Your task to perform on an android device: turn off wifi Image 0: 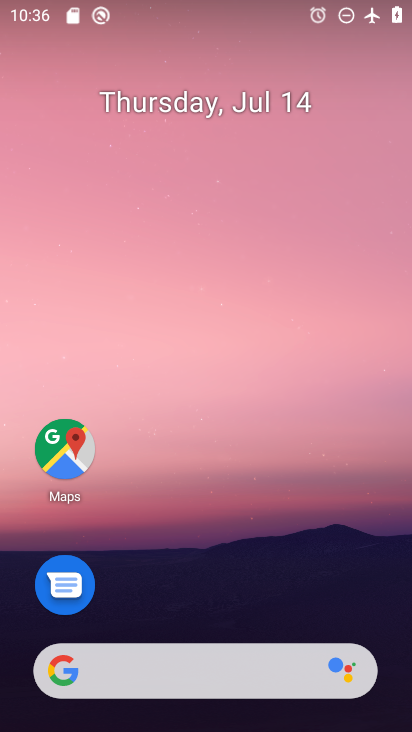
Step 0: drag from (208, 592) to (166, 117)
Your task to perform on an android device: turn off wifi Image 1: 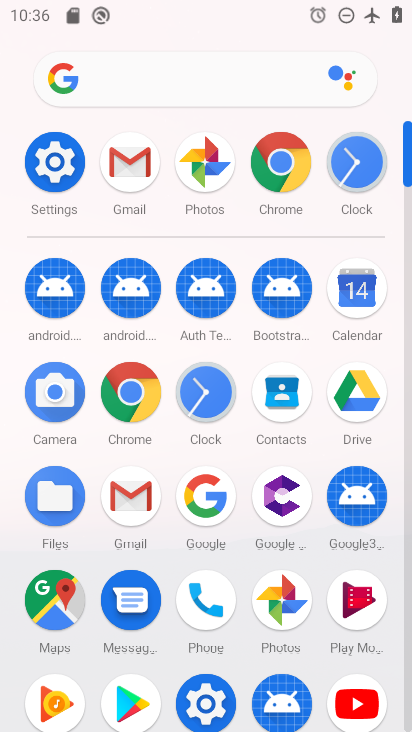
Step 1: click (86, 161)
Your task to perform on an android device: turn off wifi Image 2: 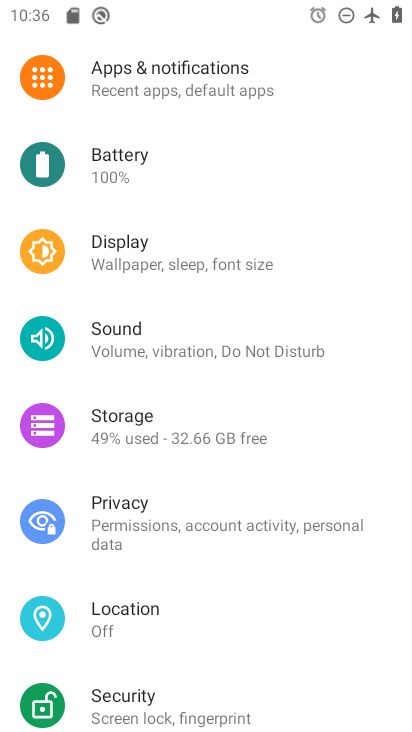
Step 2: drag from (86, 161) to (150, 494)
Your task to perform on an android device: turn off wifi Image 3: 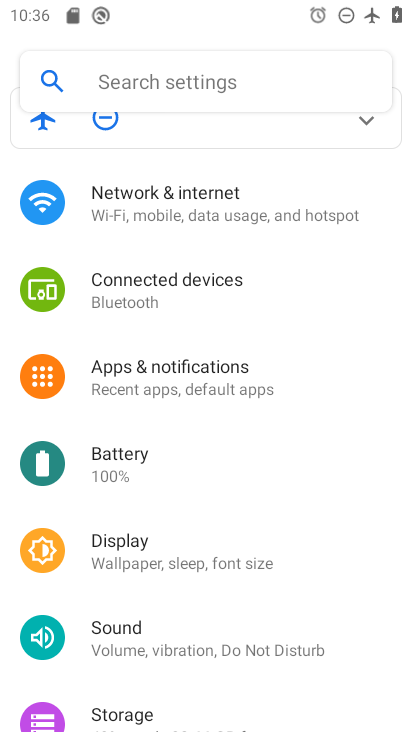
Step 3: click (140, 224)
Your task to perform on an android device: turn off wifi Image 4: 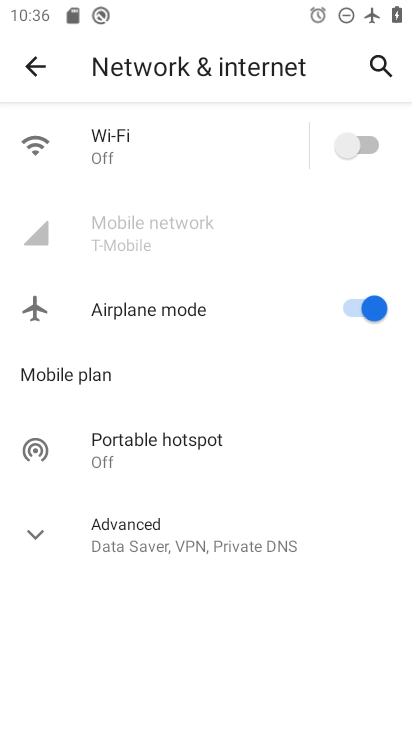
Step 4: click (146, 136)
Your task to perform on an android device: turn off wifi Image 5: 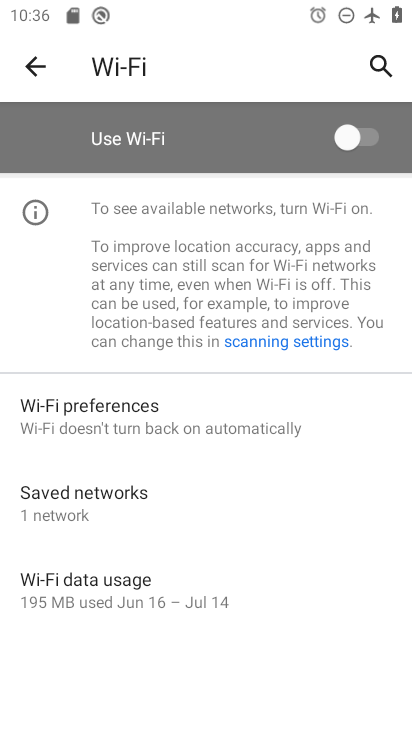
Step 5: task complete